Your task to perform on an android device: check out phone information Image 0: 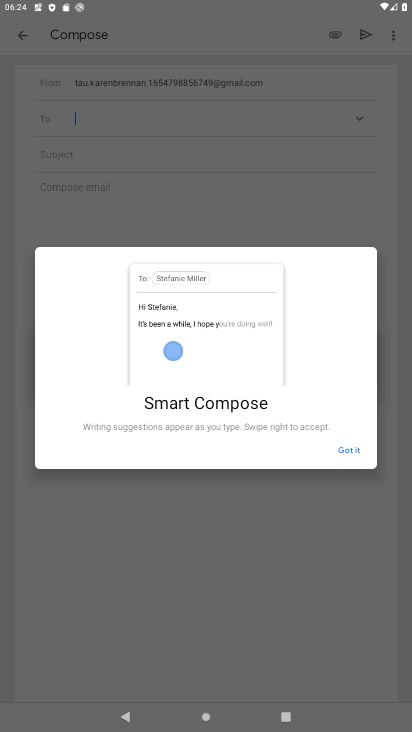
Step 0: click (347, 442)
Your task to perform on an android device: check out phone information Image 1: 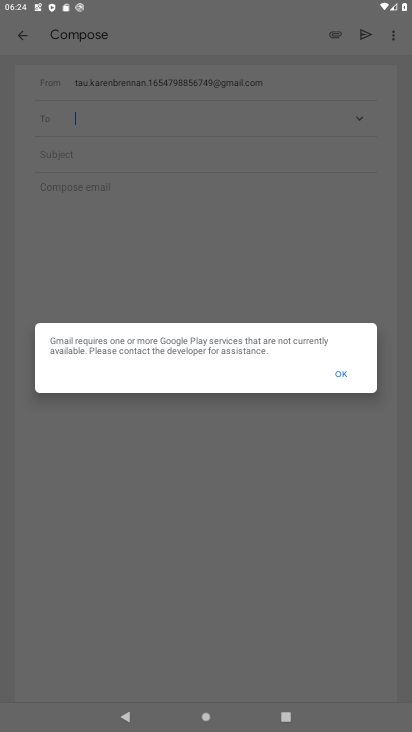
Step 1: press home button
Your task to perform on an android device: check out phone information Image 2: 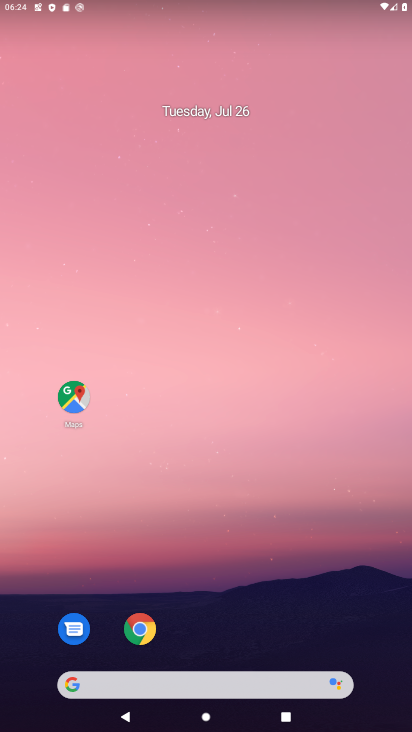
Step 2: drag from (190, 595) to (190, 159)
Your task to perform on an android device: check out phone information Image 3: 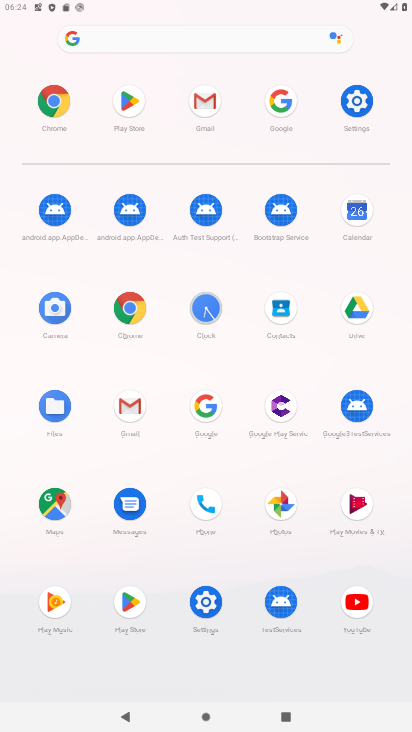
Step 3: click (354, 106)
Your task to perform on an android device: check out phone information Image 4: 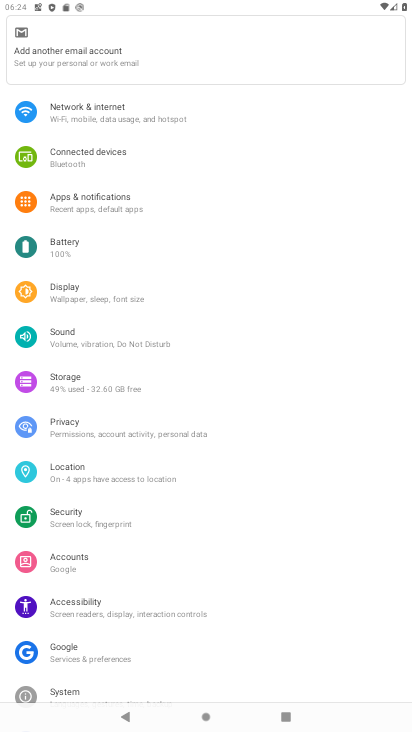
Step 4: drag from (109, 634) to (114, 361)
Your task to perform on an android device: check out phone information Image 5: 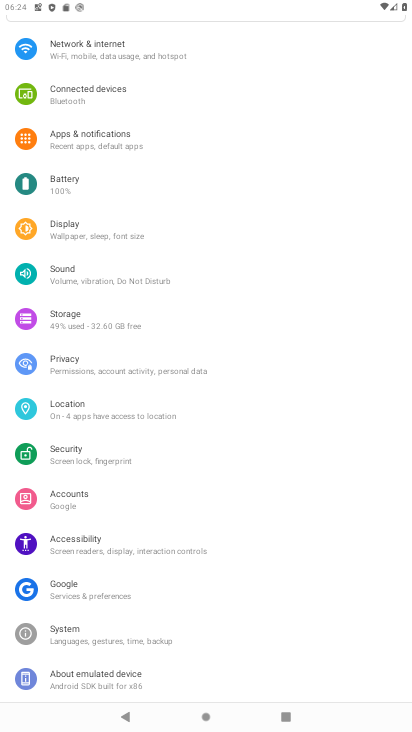
Step 5: click (73, 688)
Your task to perform on an android device: check out phone information Image 6: 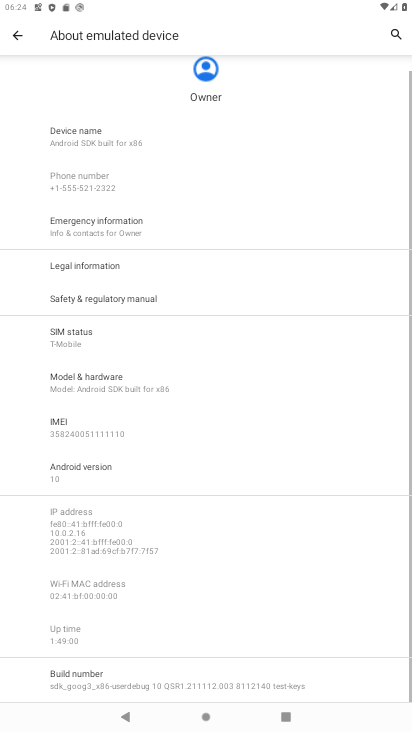
Step 6: task complete